Your task to perform on an android device: open app "Flipkart Online Shopping App" Image 0: 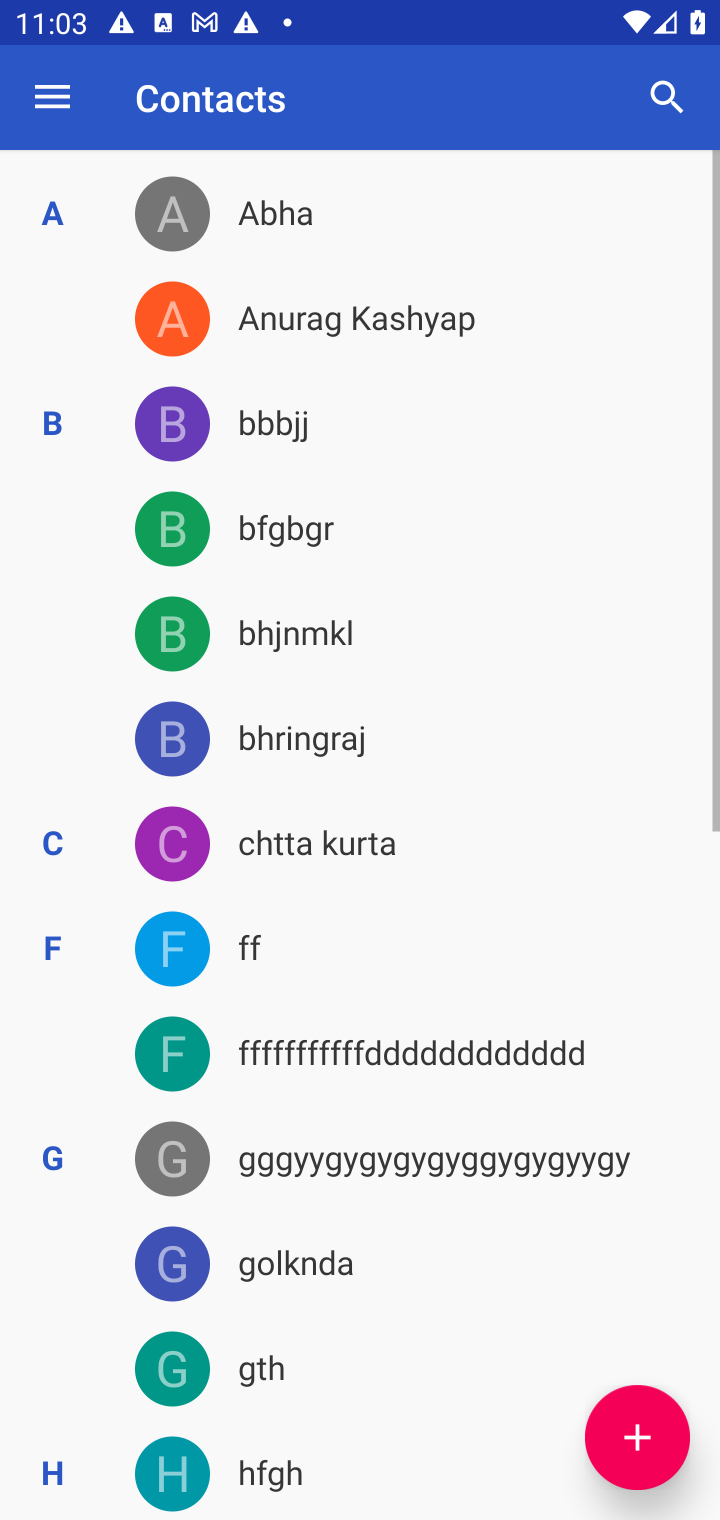
Step 0: press home button
Your task to perform on an android device: open app "Flipkart Online Shopping App" Image 1: 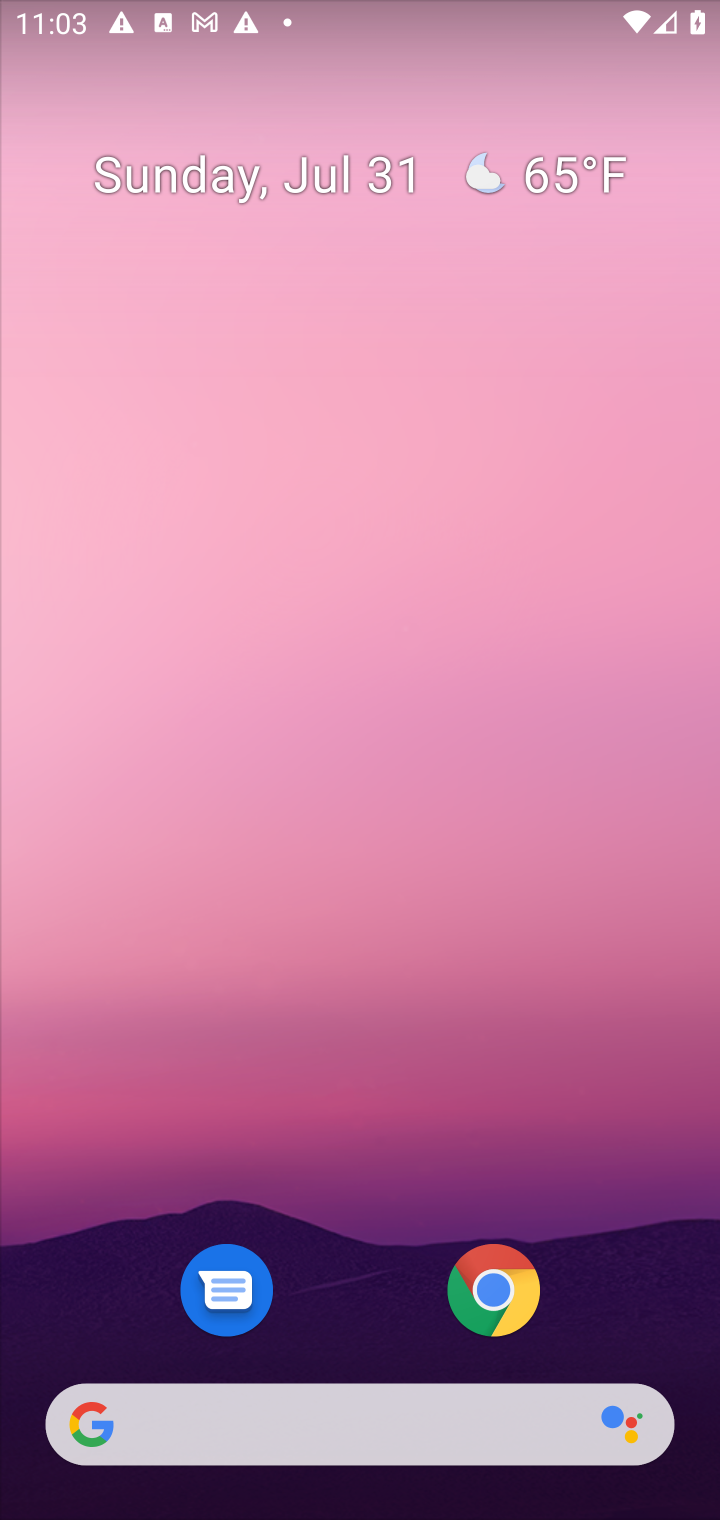
Step 1: press home button
Your task to perform on an android device: open app "Flipkart Online Shopping App" Image 2: 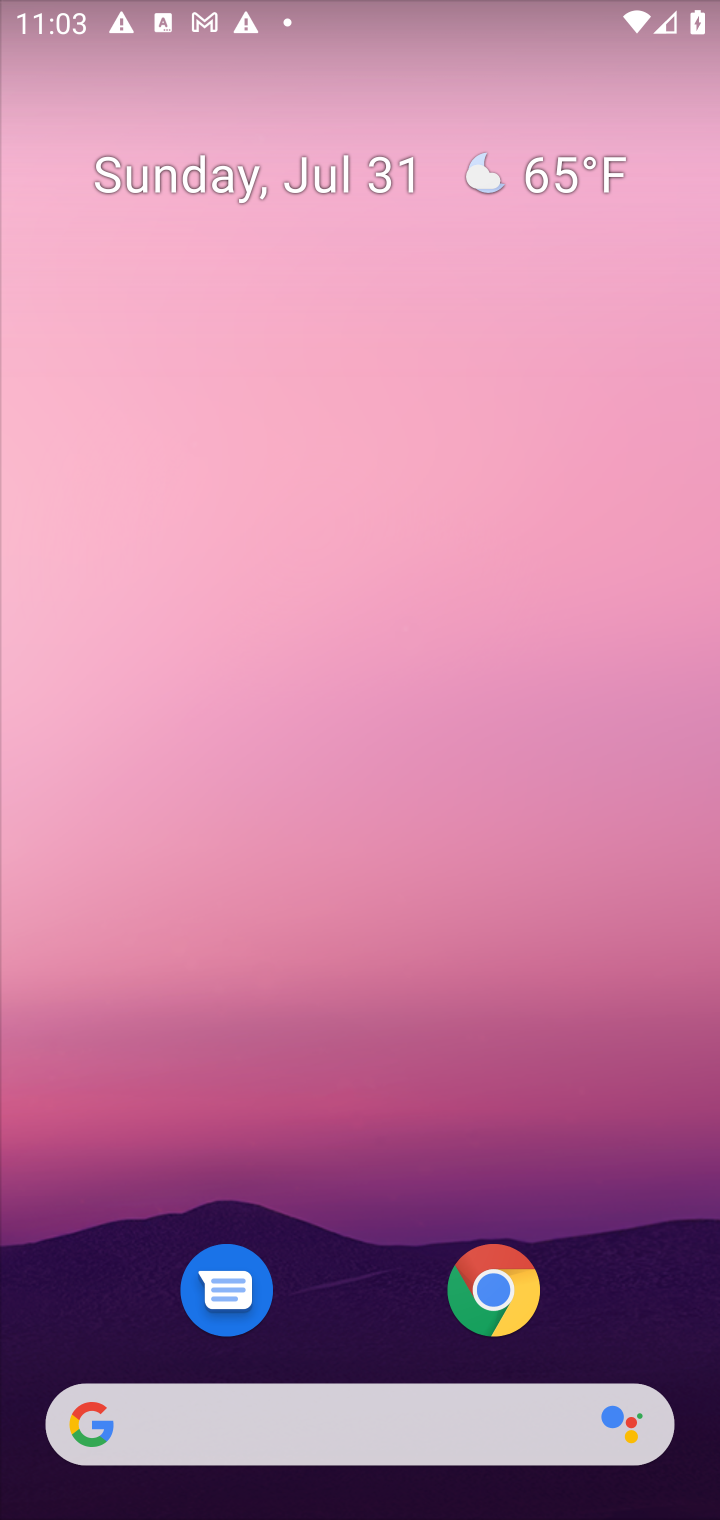
Step 2: drag from (590, 1310) to (598, 181)
Your task to perform on an android device: open app "Flipkart Online Shopping App" Image 3: 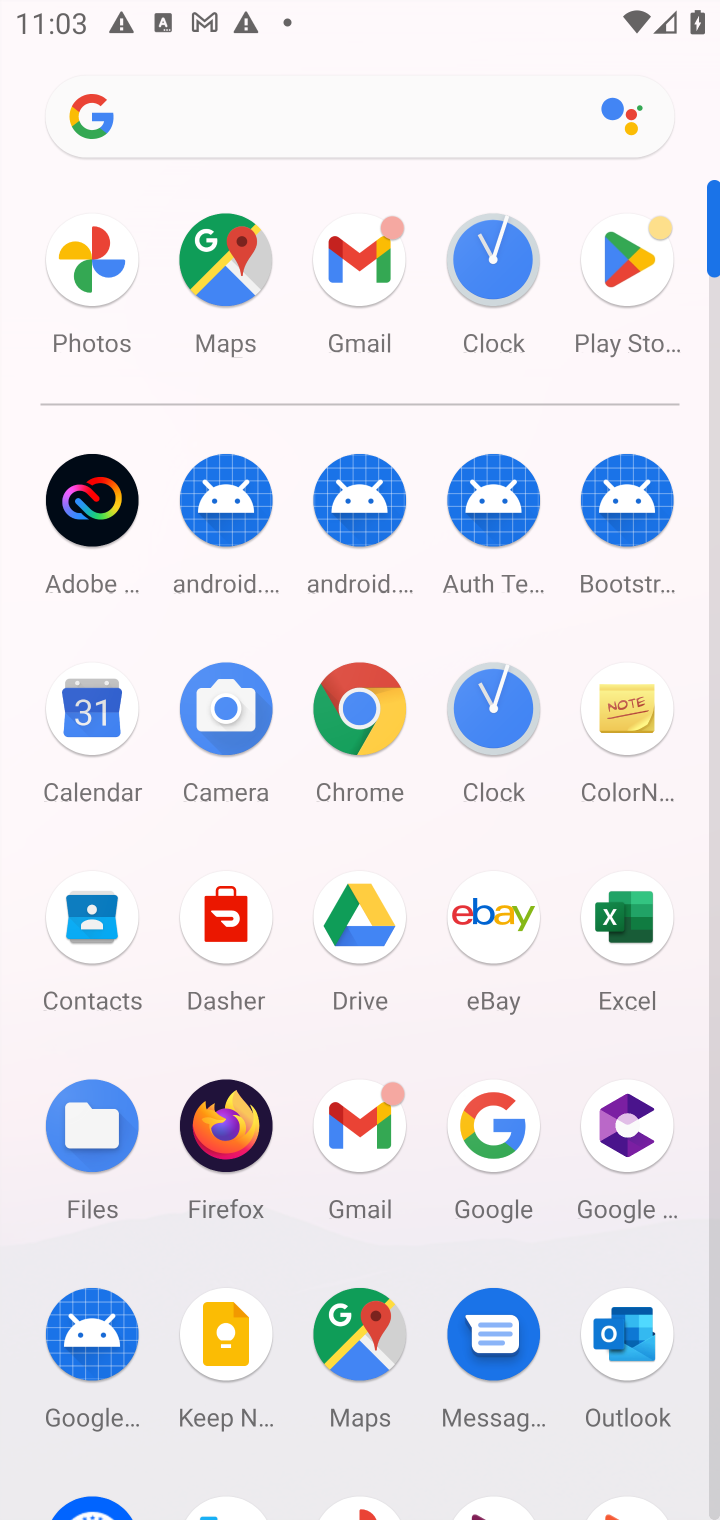
Step 3: click (639, 268)
Your task to perform on an android device: open app "Flipkart Online Shopping App" Image 4: 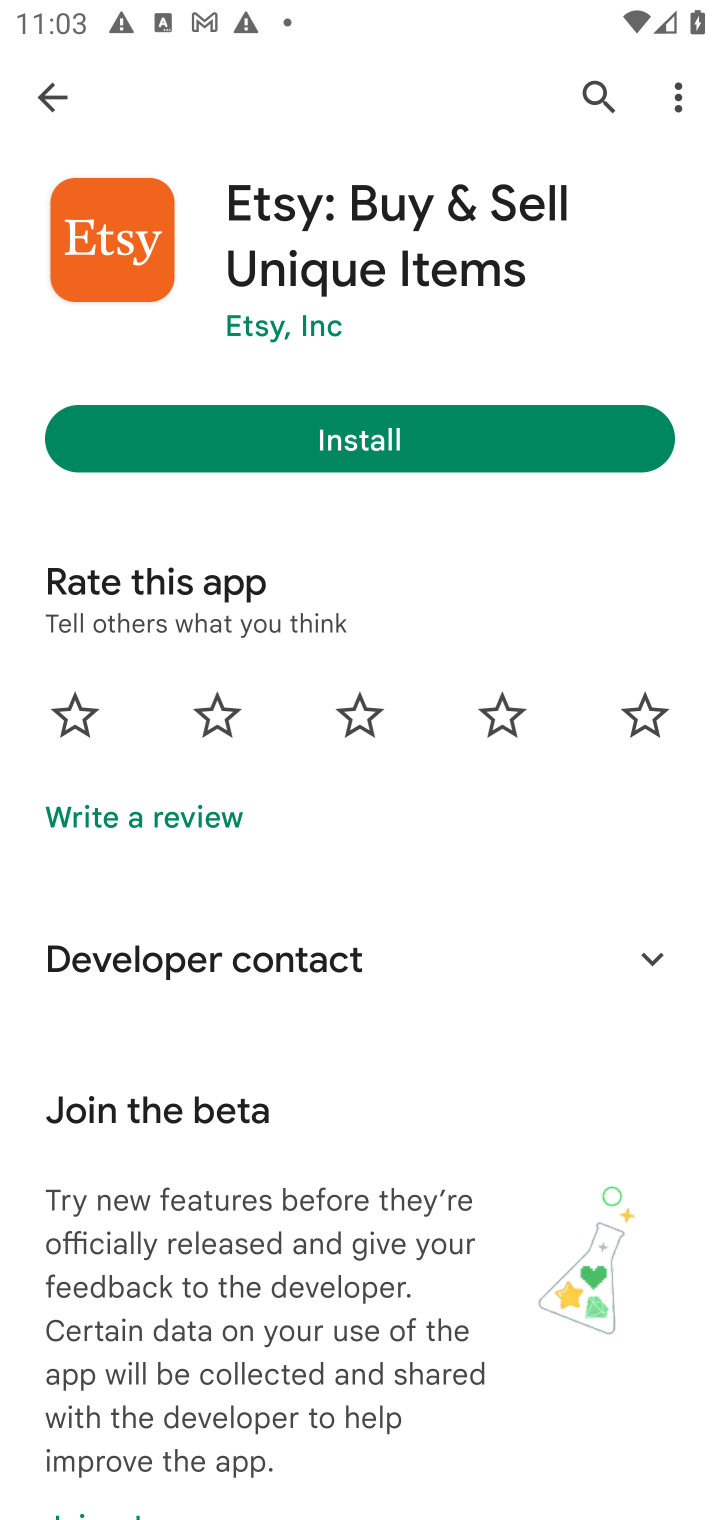
Step 4: press back button
Your task to perform on an android device: open app "Flipkart Online Shopping App" Image 5: 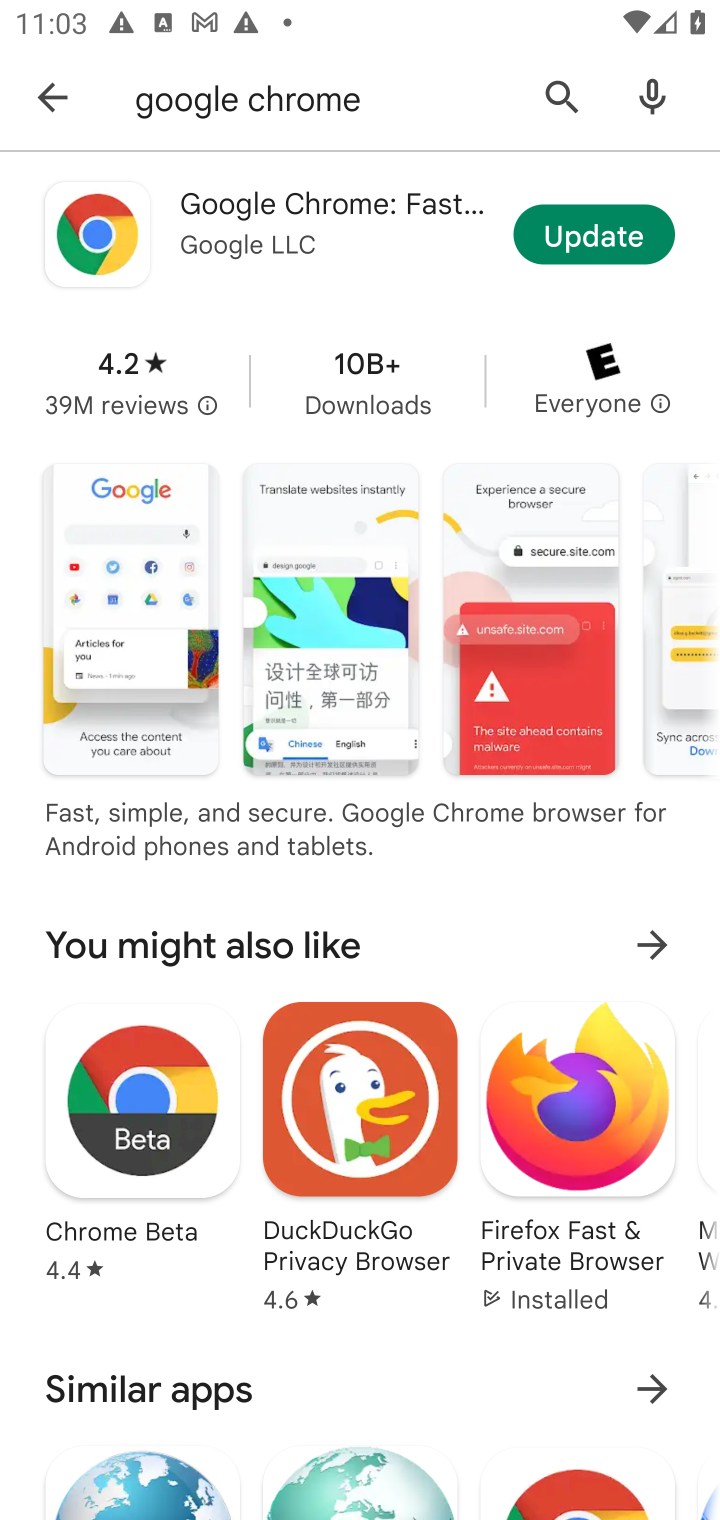
Step 5: click (544, 77)
Your task to perform on an android device: open app "Flipkart Online Shopping App" Image 6: 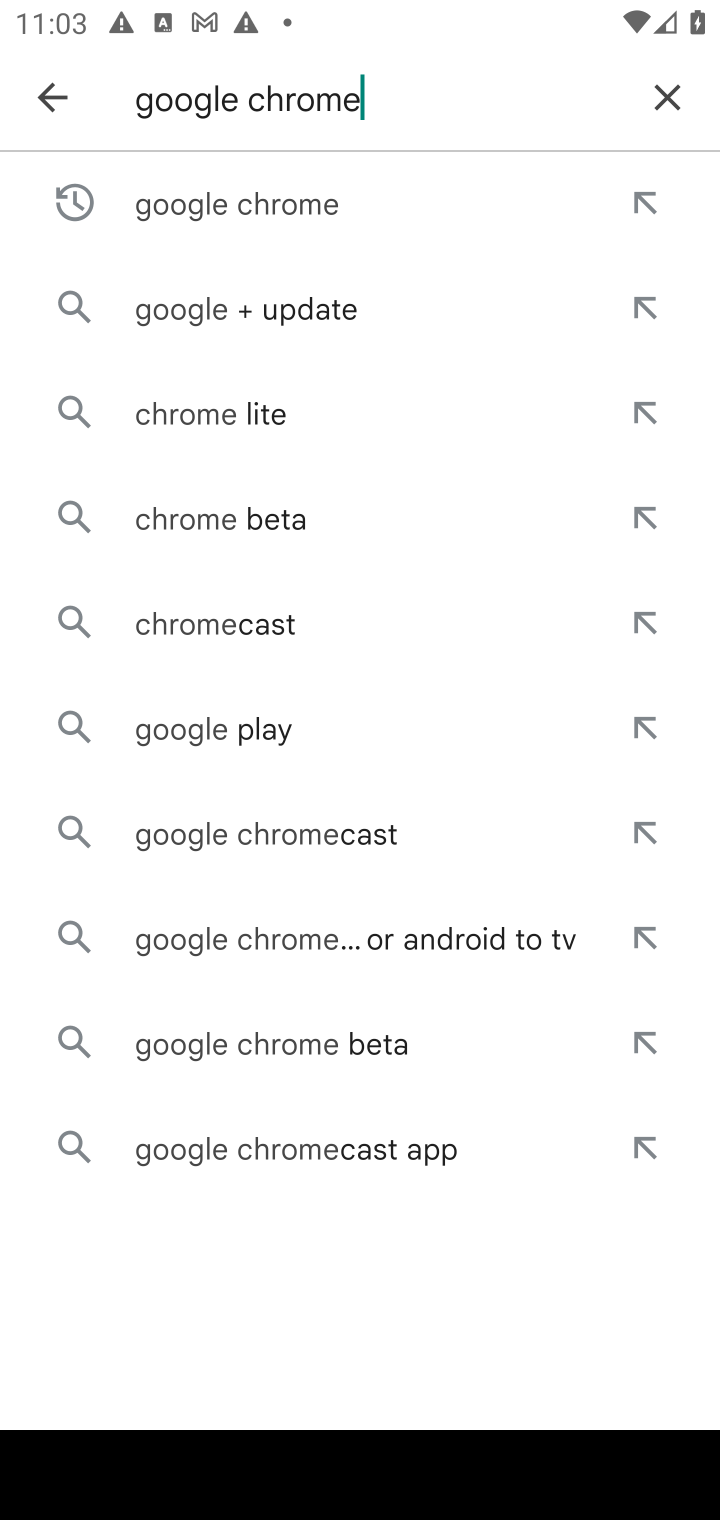
Step 6: click (666, 100)
Your task to perform on an android device: open app "Flipkart Online Shopping App" Image 7: 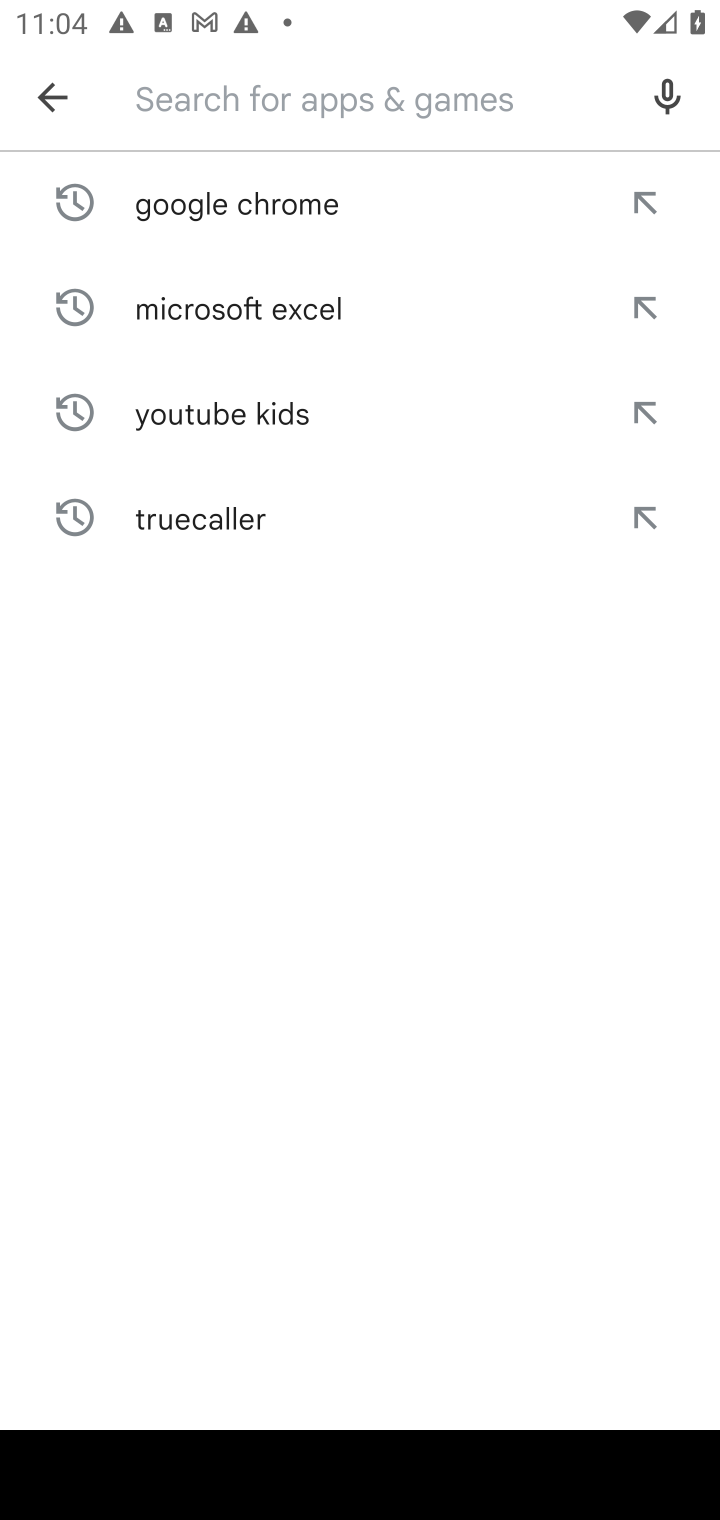
Step 7: type "flipkart online sopping aap"
Your task to perform on an android device: open app "Flipkart Online Shopping App" Image 8: 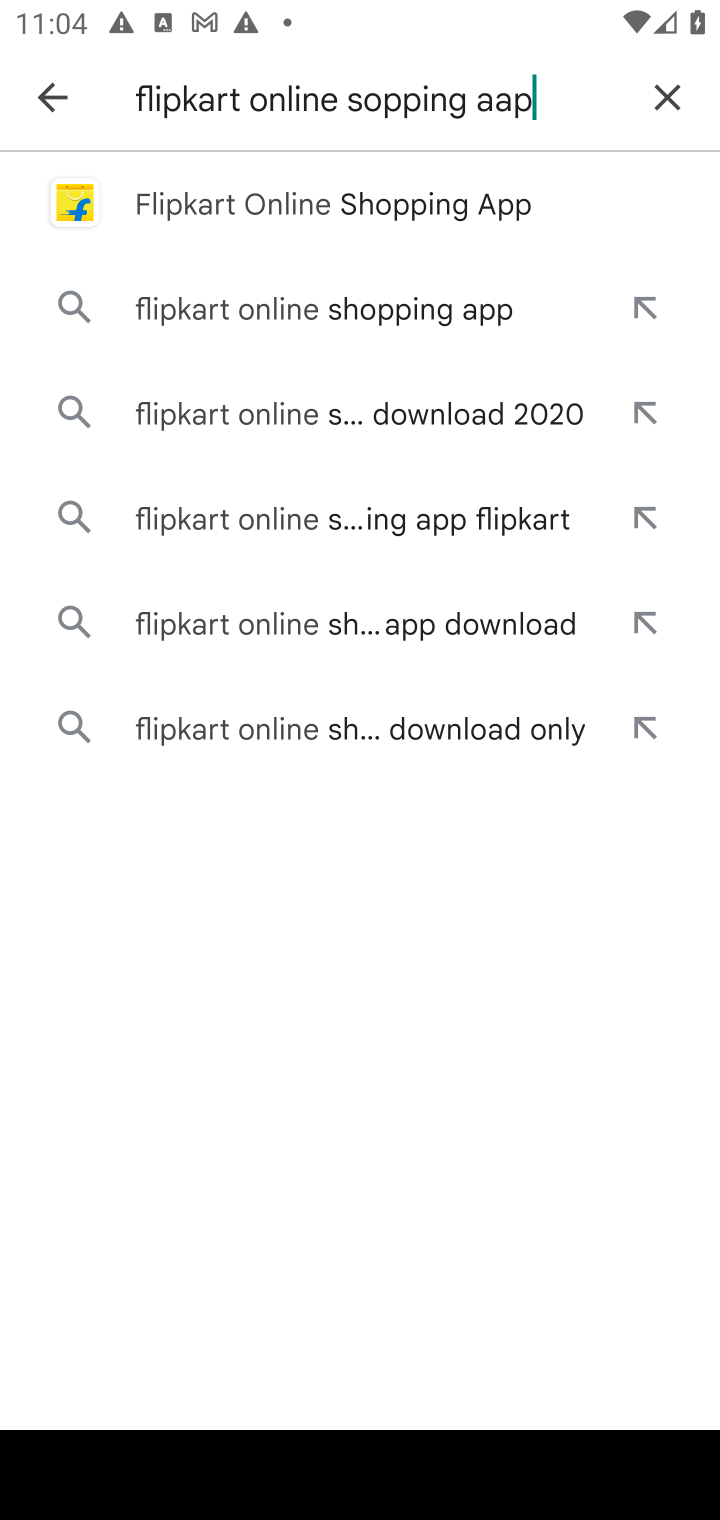
Step 8: click (526, 221)
Your task to perform on an android device: open app "Flipkart Online Shopping App" Image 9: 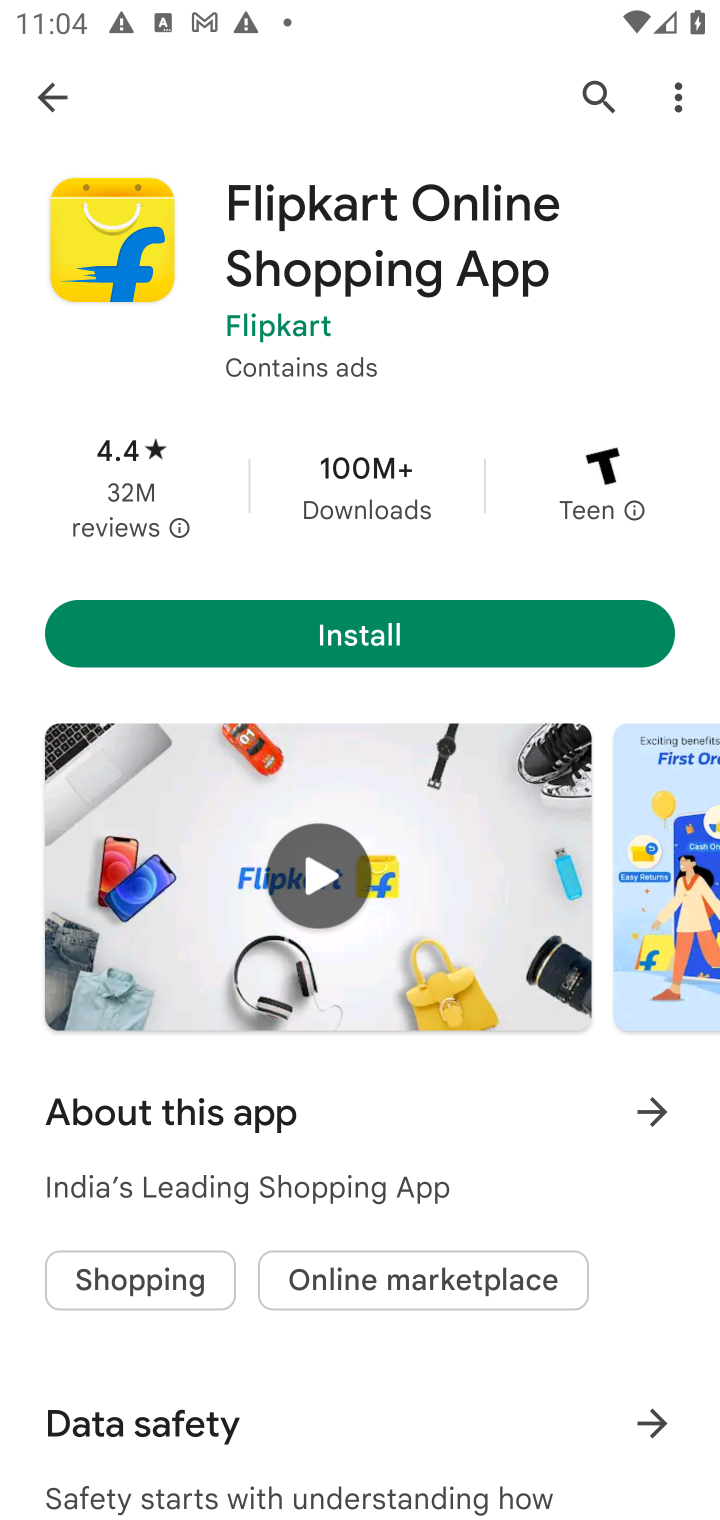
Step 9: task complete